Your task to perform on an android device: toggle sleep mode Image 0: 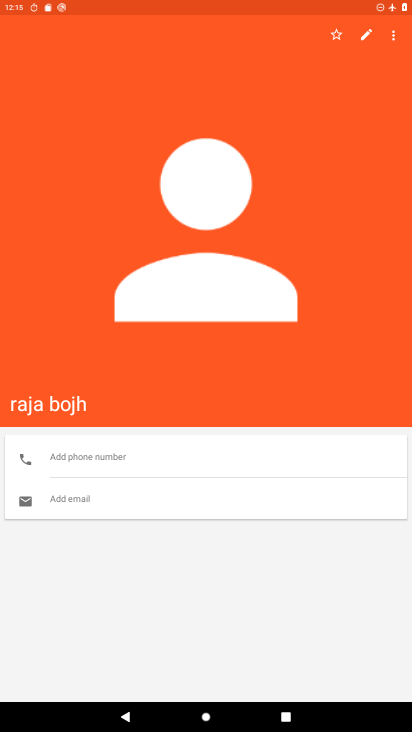
Step 0: press home button
Your task to perform on an android device: toggle sleep mode Image 1: 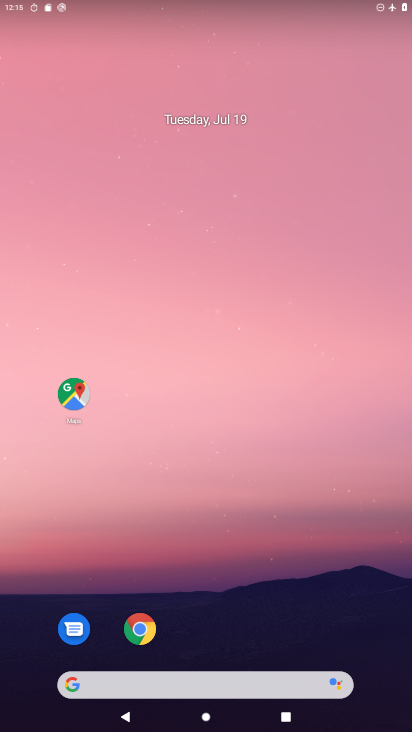
Step 1: drag from (290, 633) to (243, 147)
Your task to perform on an android device: toggle sleep mode Image 2: 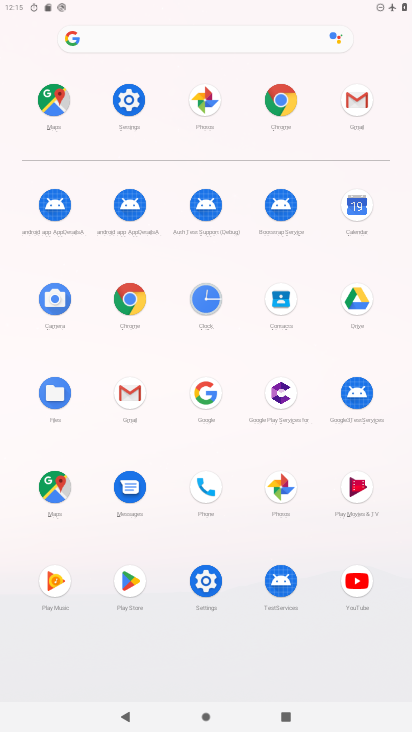
Step 2: click (116, 100)
Your task to perform on an android device: toggle sleep mode Image 3: 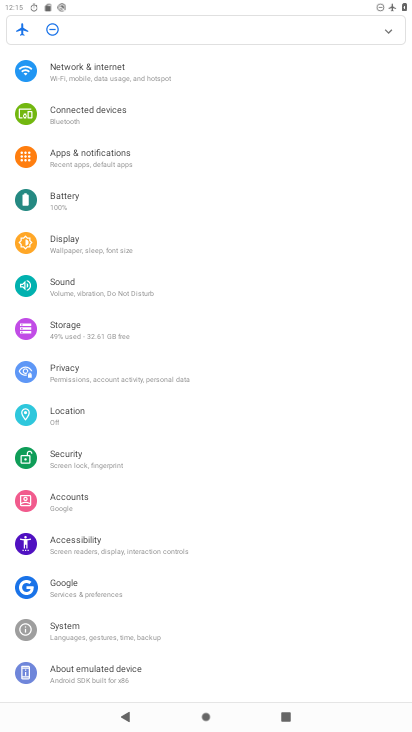
Step 3: click (62, 244)
Your task to perform on an android device: toggle sleep mode Image 4: 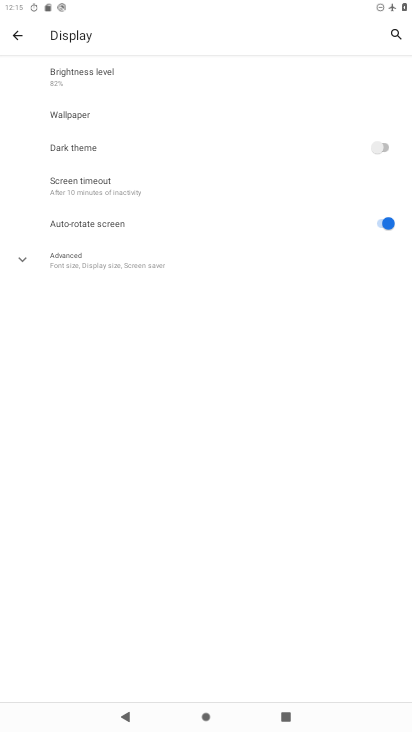
Step 4: click (87, 190)
Your task to perform on an android device: toggle sleep mode Image 5: 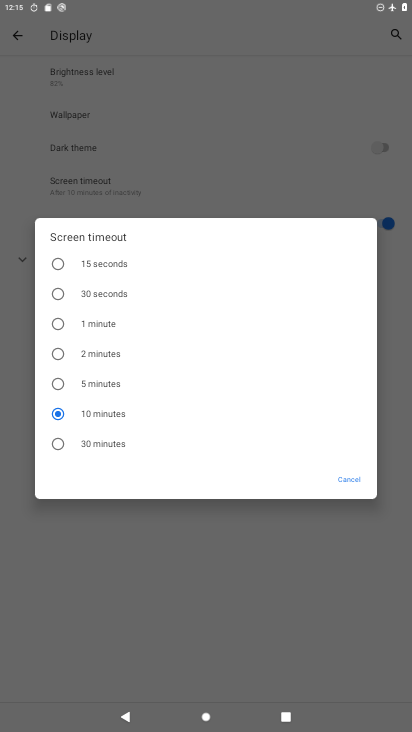
Step 5: click (80, 444)
Your task to perform on an android device: toggle sleep mode Image 6: 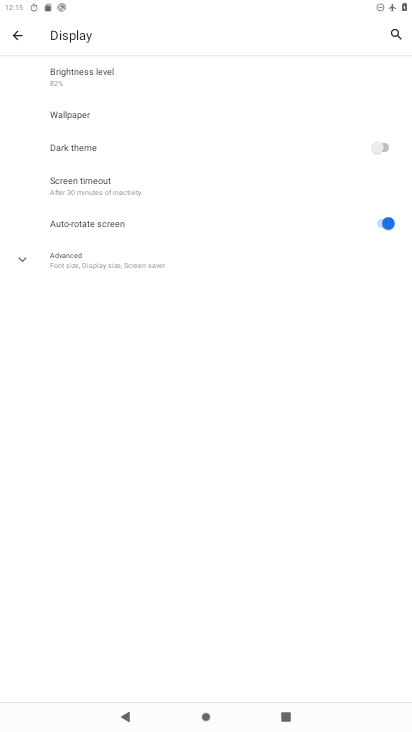
Step 6: task complete